Your task to perform on an android device: Go to settings Image 0: 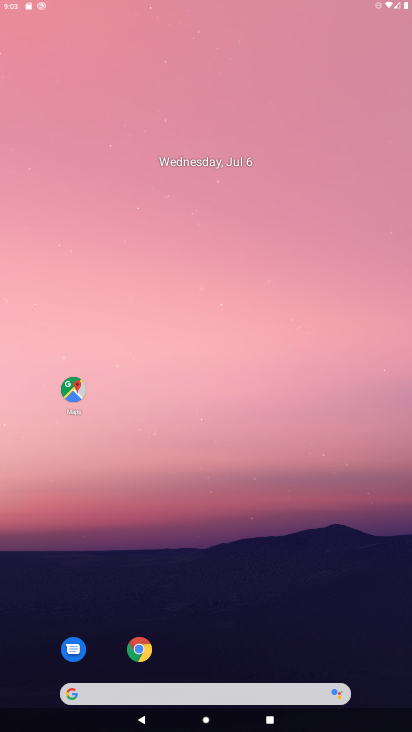
Step 0: drag from (92, 228) to (276, 70)
Your task to perform on an android device: Go to settings Image 1: 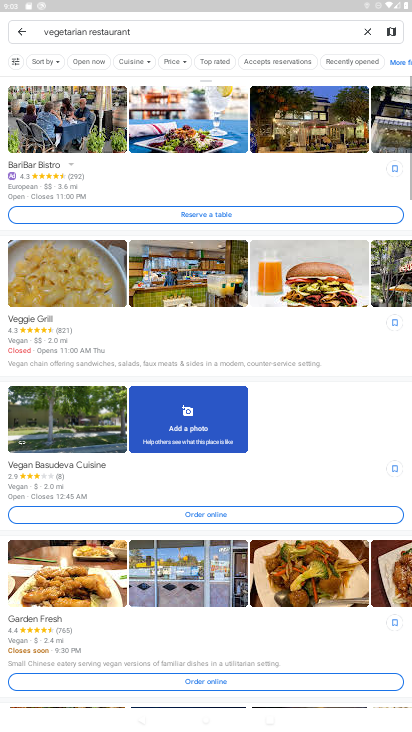
Step 1: press back button
Your task to perform on an android device: Go to settings Image 2: 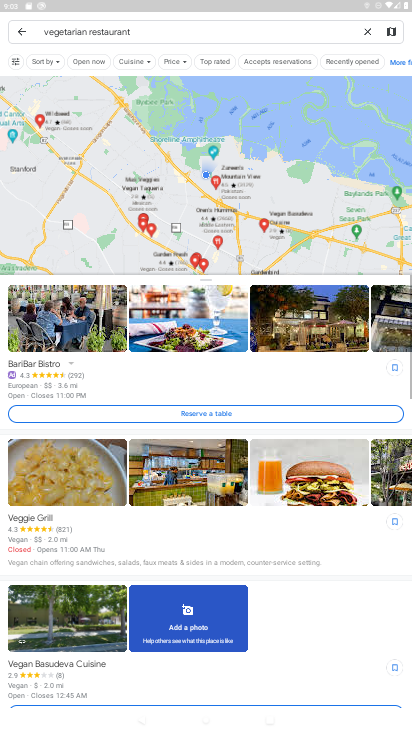
Step 2: press home button
Your task to perform on an android device: Go to settings Image 3: 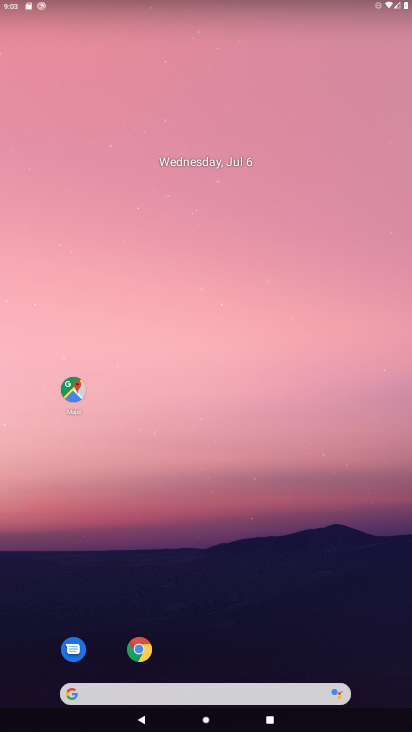
Step 3: drag from (233, 670) to (139, 156)
Your task to perform on an android device: Go to settings Image 4: 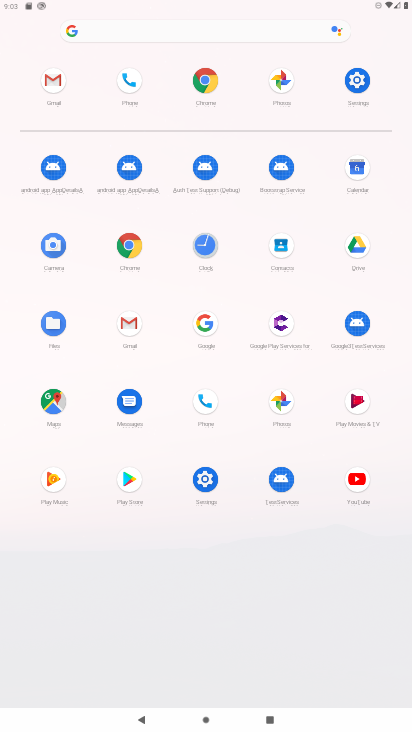
Step 4: click (203, 480)
Your task to perform on an android device: Go to settings Image 5: 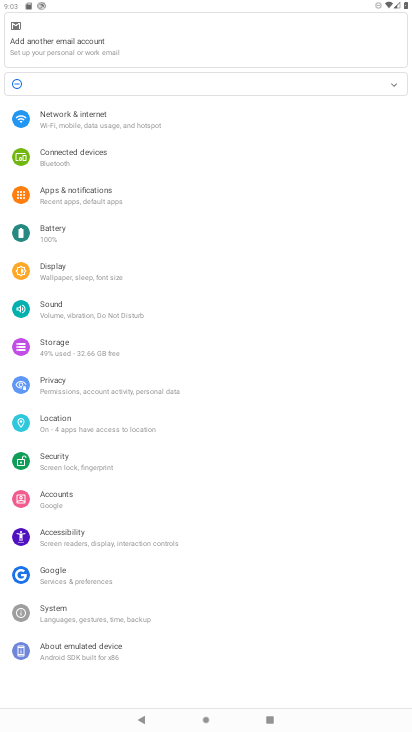
Step 5: task complete